Your task to perform on an android device: Show me popular videos on Youtube Image 0: 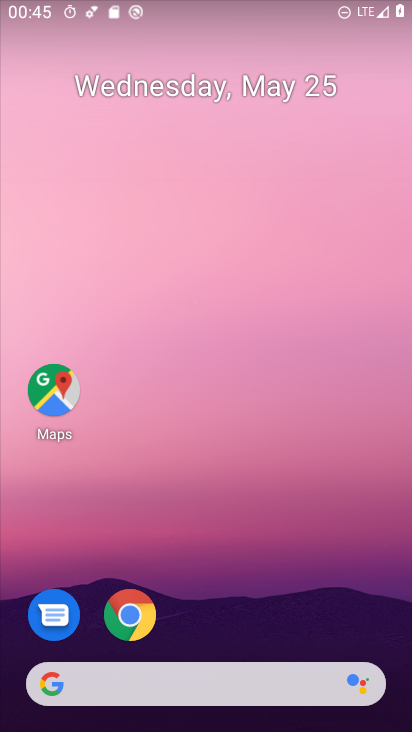
Step 0: drag from (251, 703) to (306, 151)
Your task to perform on an android device: Show me popular videos on Youtube Image 1: 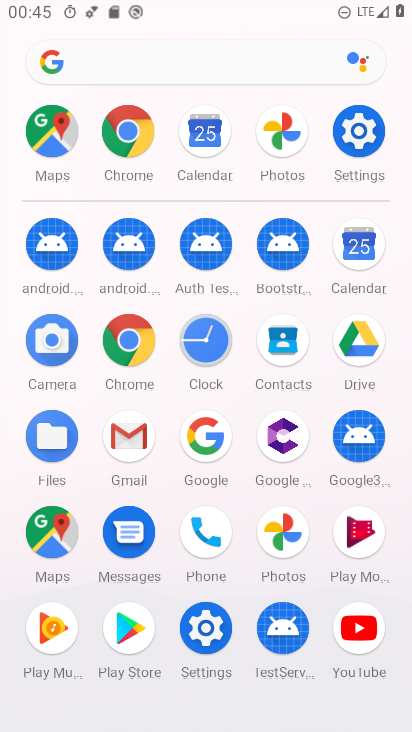
Step 1: click (356, 607)
Your task to perform on an android device: Show me popular videos on Youtube Image 2: 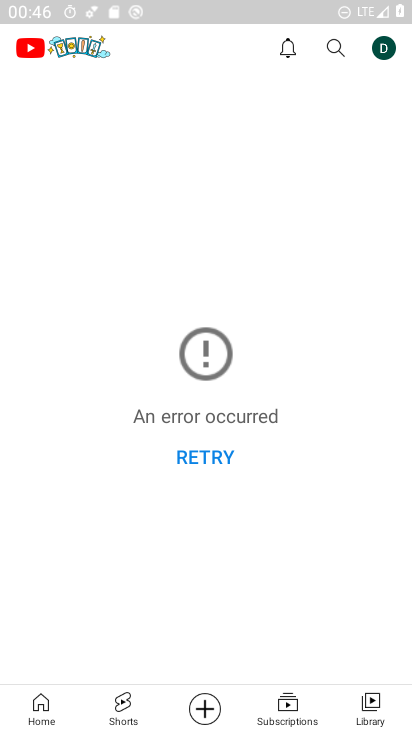
Step 2: click (293, 693)
Your task to perform on an android device: Show me popular videos on Youtube Image 3: 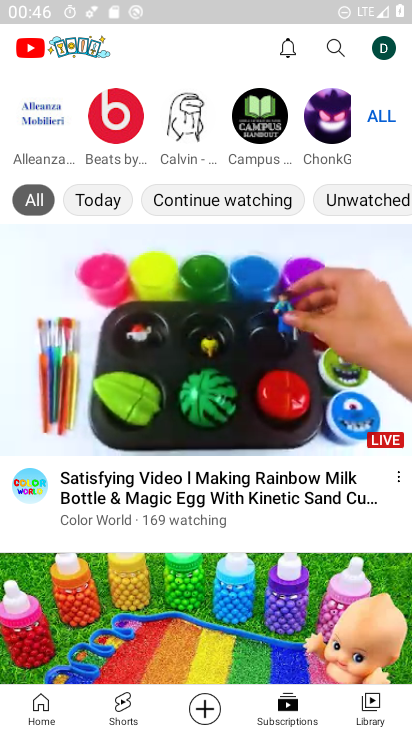
Step 3: click (340, 58)
Your task to perform on an android device: Show me popular videos on Youtube Image 4: 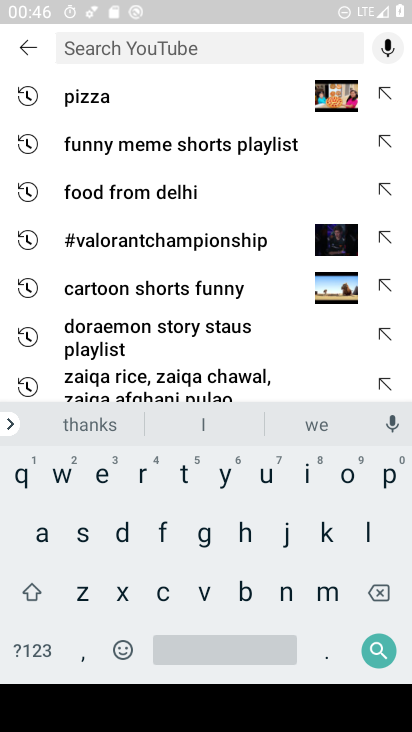
Step 4: click (390, 477)
Your task to perform on an android device: Show me popular videos on Youtube Image 5: 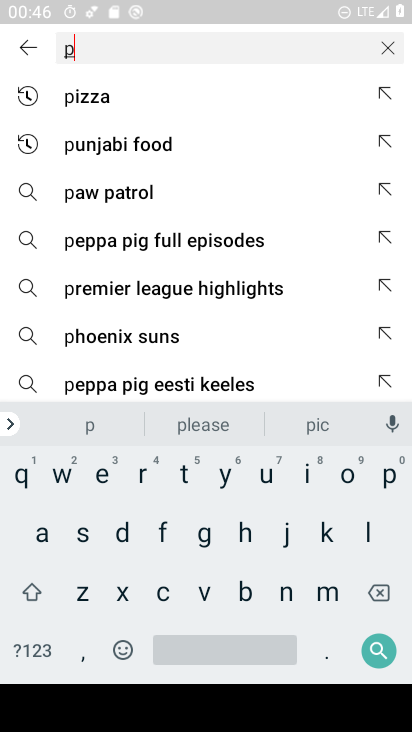
Step 5: click (343, 475)
Your task to perform on an android device: Show me popular videos on Youtube Image 6: 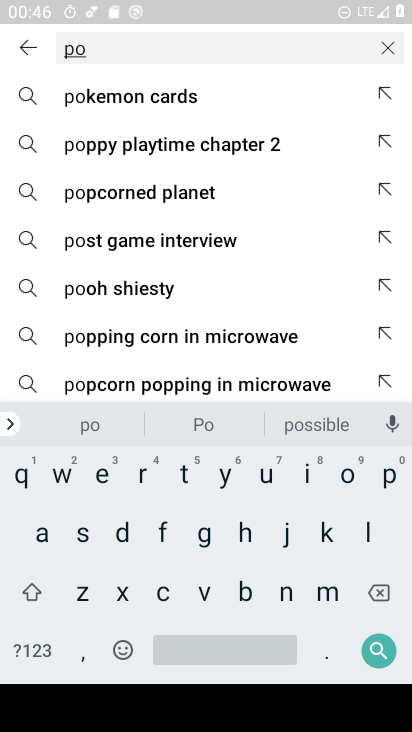
Step 6: click (390, 476)
Your task to perform on an android device: Show me popular videos on Youtube Image 7: 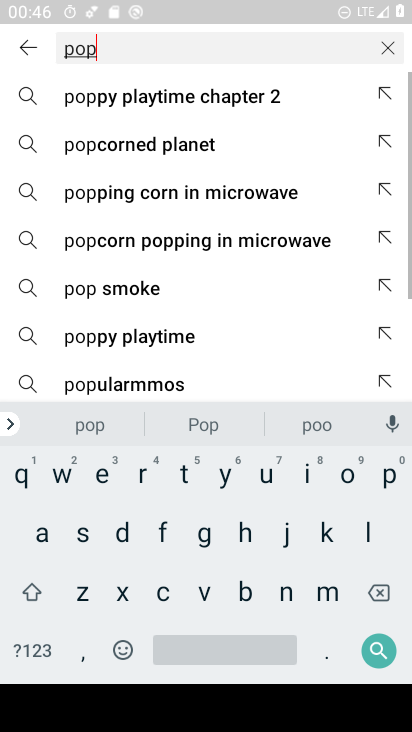
Step 7: click (261, 479)
Your task to perform on an android device: Show me popular videos on Youtube Image 8: 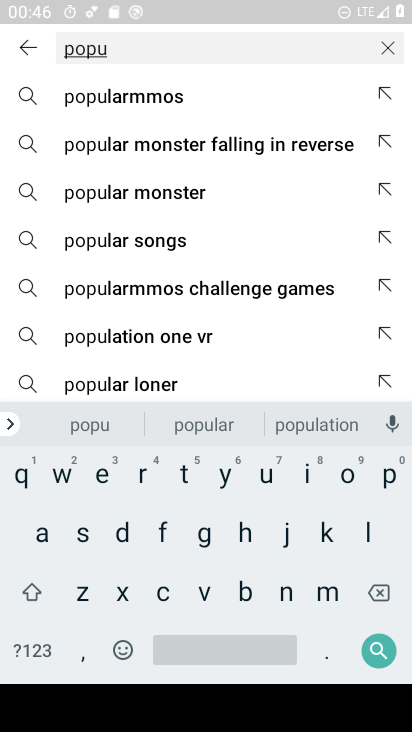
Step 8: click (205, 416)
Your task to perform on an android device: Show me popular videos on Youtube Image 9: 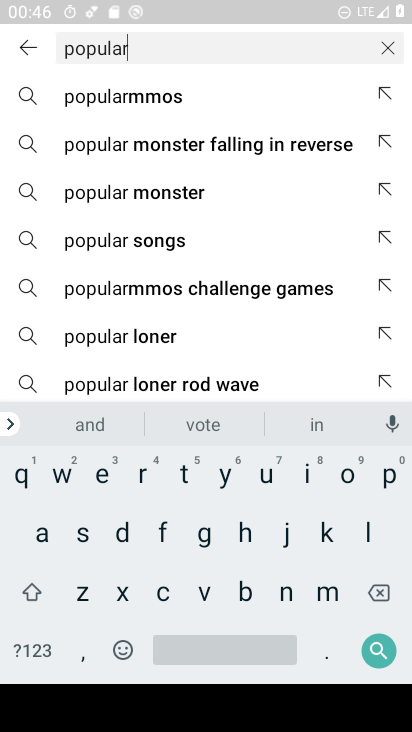
Step 9: click (203, 595)
Your task to perform on an android device: Show me popular videos on Youtube Image 10: 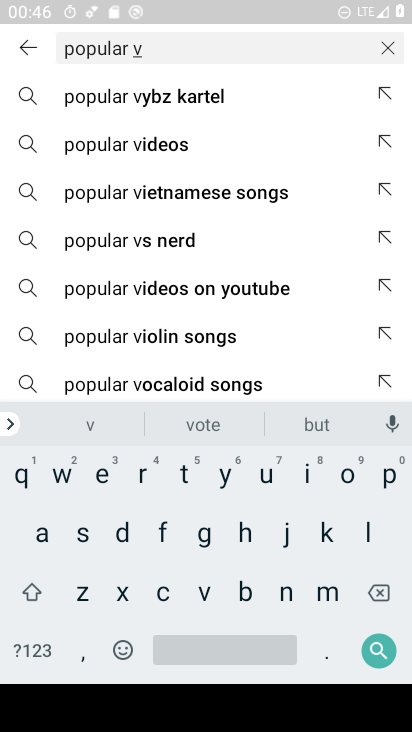
Step 10: click (144, 134)
Your task to perform on an android device: Show me popular videos on Youtube Image 11: 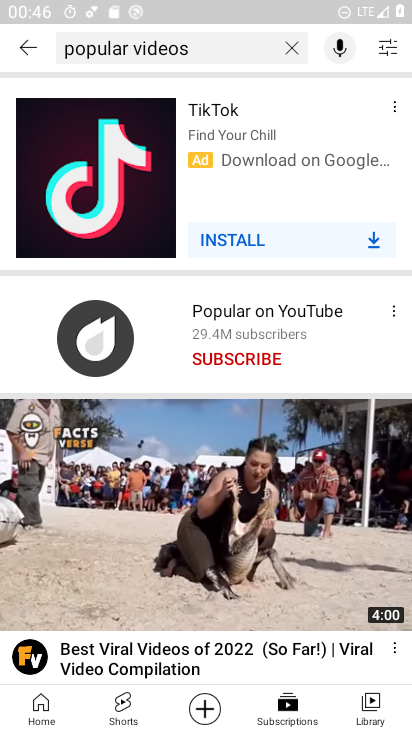
Step 11: task complete